Your task to perform on an android device: Open settings Image 0: 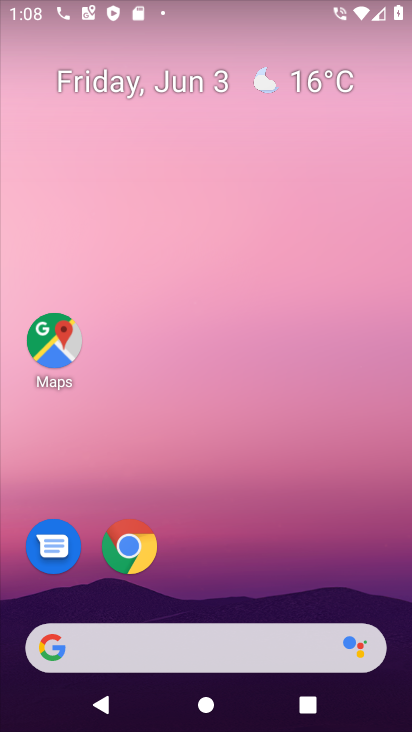
Step 0: drag from (277, 549) to (235, 150)
Your task to perform on an android device: Open settings Image 1: 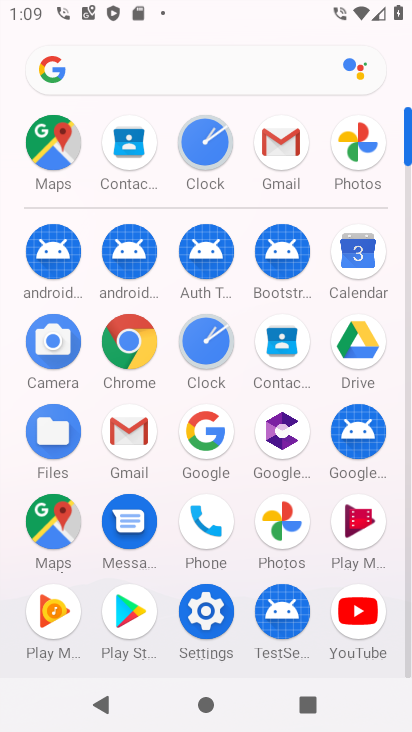
Step 1: click (203, 612)
Your task to perform on an android device: Open settings Image 2: 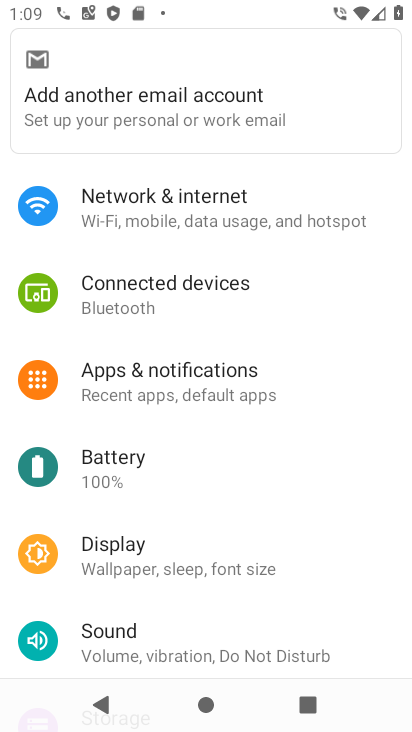
Step 2: task complete